Your task to perform on an android device: turn off airplane mode Image 0: 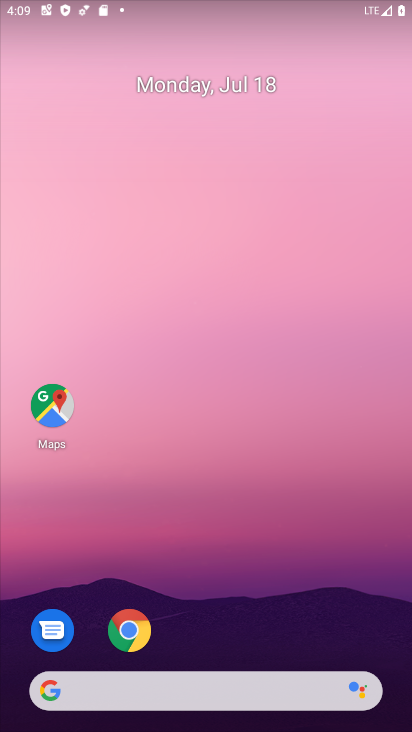
Step 0: drag from (377, 647) to (356, 292)
Your task to perform on an android device: turn off airplane mode Image 1: 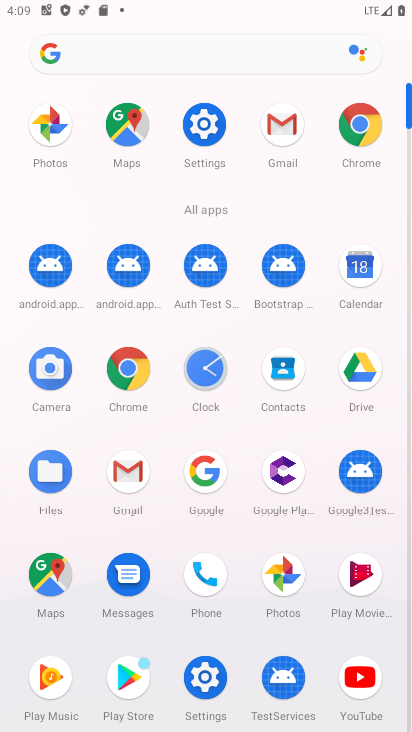
Step 1: click (206, 676)
Your task to perform on an android device: turn off airplane mode Image 2: 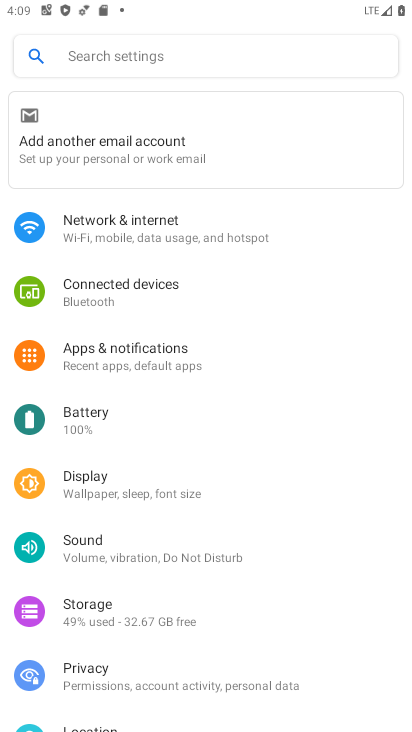
Step 2: click (106, 224)
Your task to perform on an android device: turn off airplane mode Image 3: 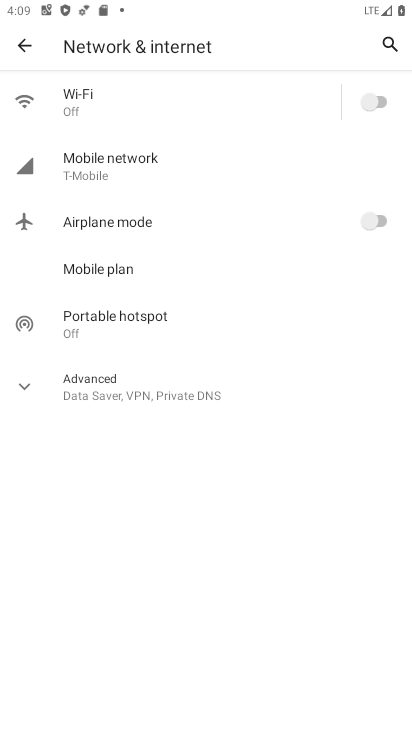
Step 3: task complete